Your task to perform on an android device: Open the phone app and click the voicemail tab. Image 0: 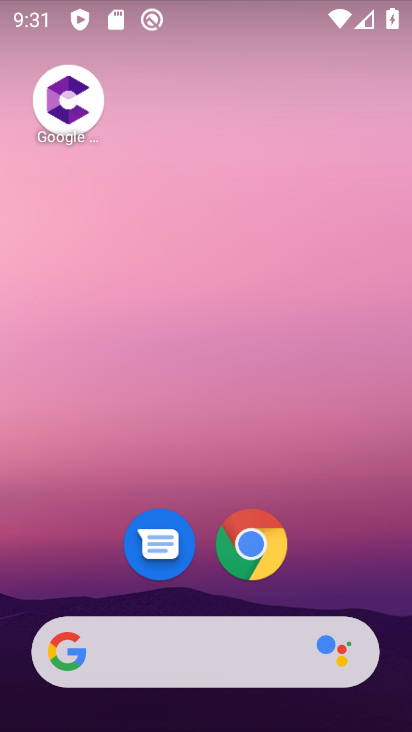
Step 0: drag from (191, 548) to (229, 238)
Your task to perform on an android device: Open the phone app and click the voicemail tab. Image 1: 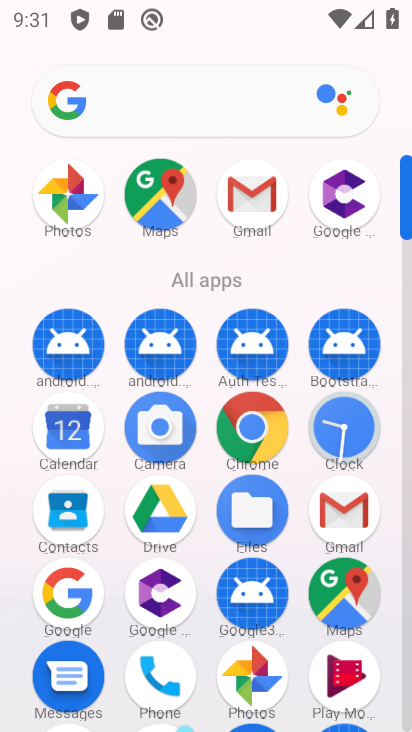
Step 1: click (159, 668)
Your task to perform on an android device: Open the phone app and click the voicemail tab. Image 2: 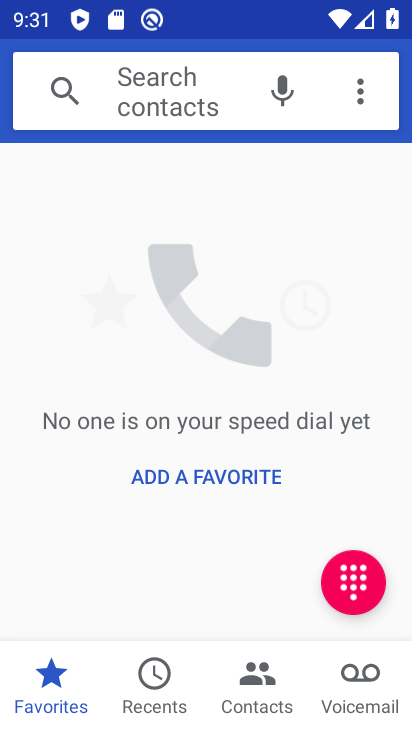
Step 2: click (343, 690)
Your task to perform on an android device: Open the phone app and click the voicemail tab. Image 3: 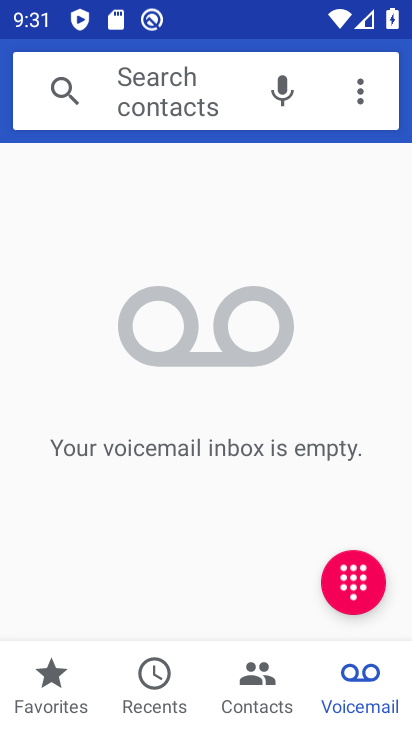
Step 3: task complete